Your task to perform on an android device: Go to notification settings Image 0: 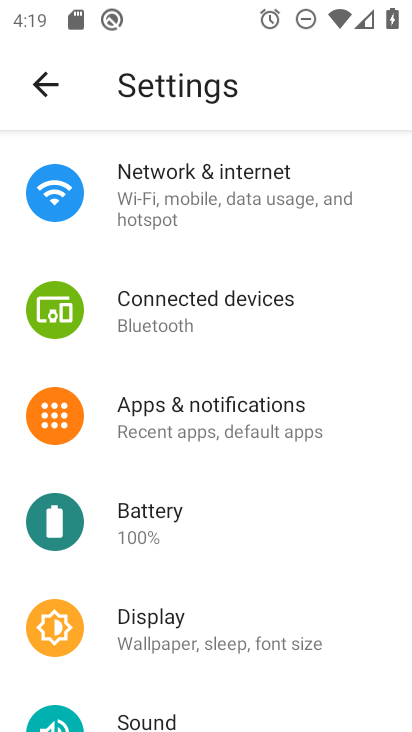
Step 0: press back button
Your task to perform on an android device: Go to notification settings Image 1: 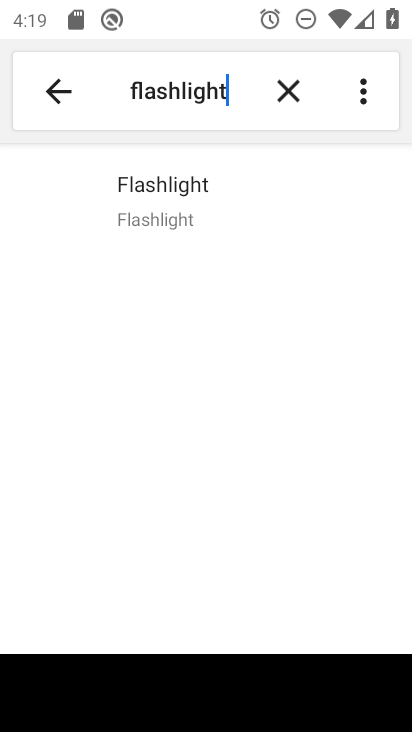
Step 1: press home button
Your task to perform on an android device: Go to notification settings Image 2: 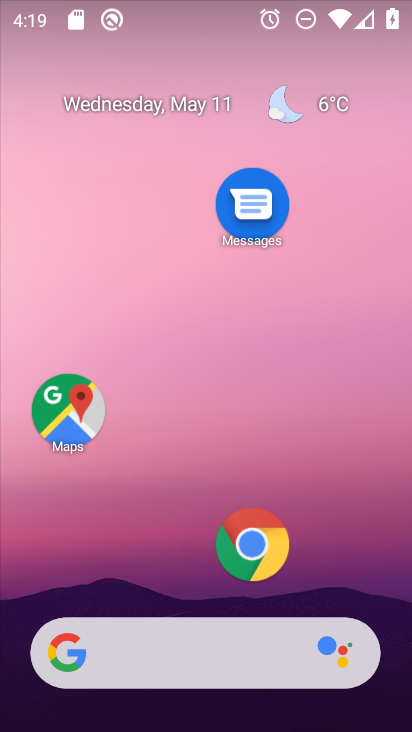
Step 2: drag from (133, 578) to (205, 63)
Your task to perform on an android device: Go to notification settings Image 3: 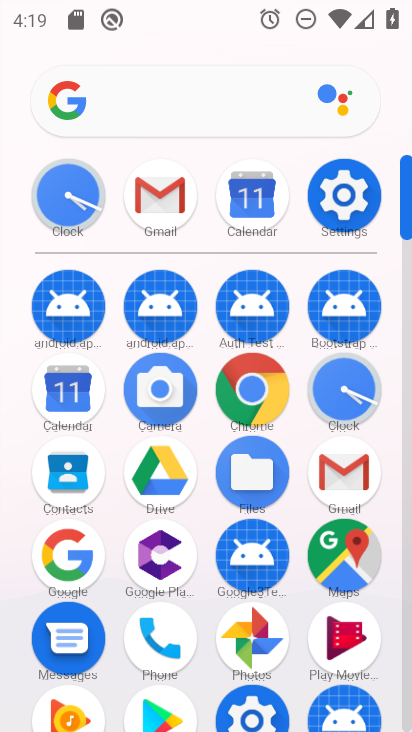
Step 3: click (369, 189)
Your task to perform on an android device: Go to notification settings Image 4: 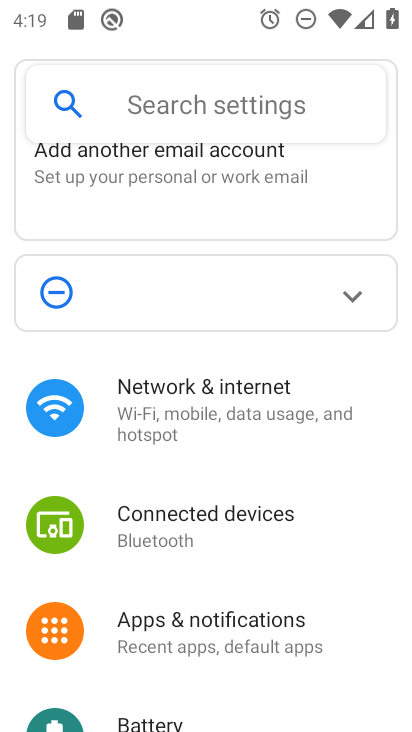
Step 4: click (191, 622)
Your task to perform on an android device: Go to notification settings Image 5: 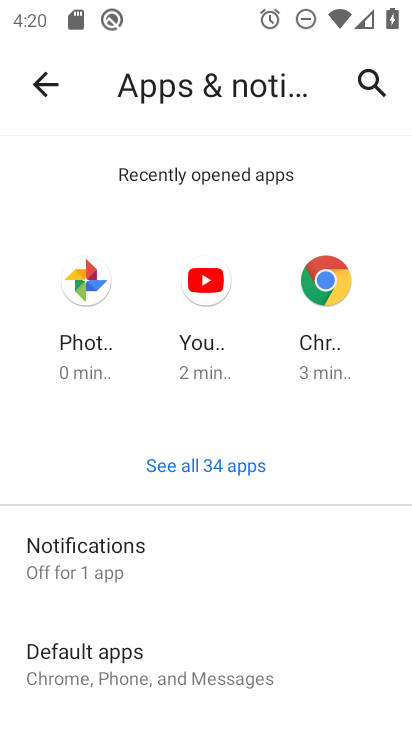
Step 5: click (153, 550)
Your task to perform on an android device: Go to notification settings Image 6: 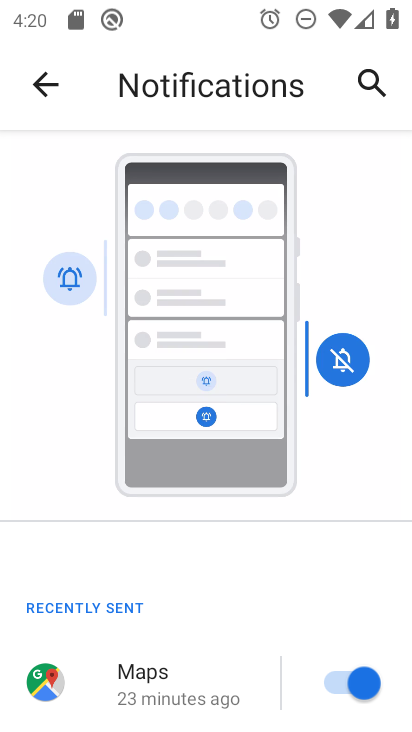
Step 6: task complete